Your task to perform on an android device: Open the calendar app, open the side menu, and click the "Day" option Image 0: 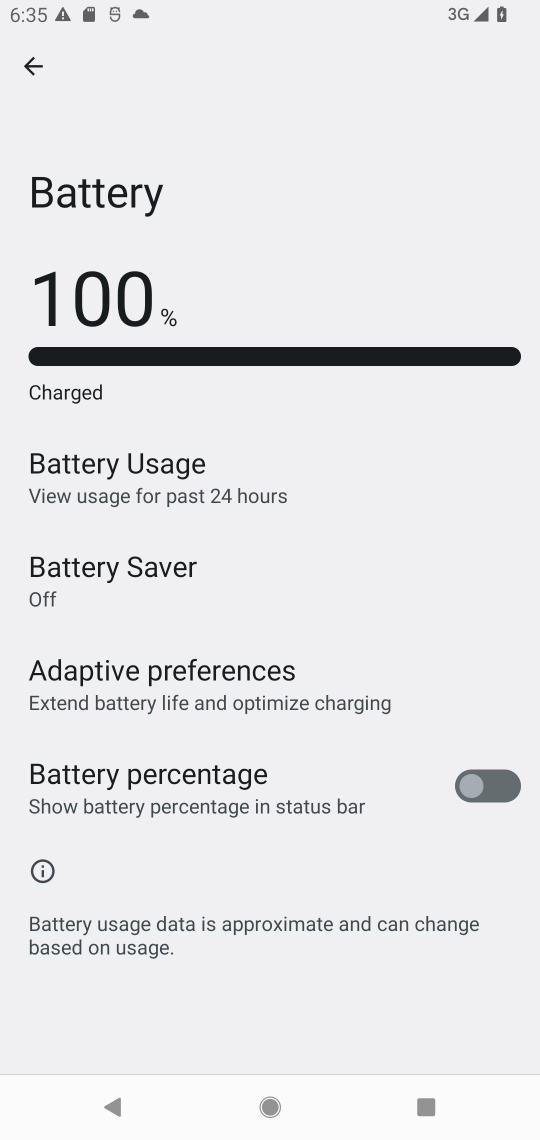
Step 0: press home button
Your task to perform on an android device: Open the calendar app, open the side menu, and click the "Day" option Image 1: 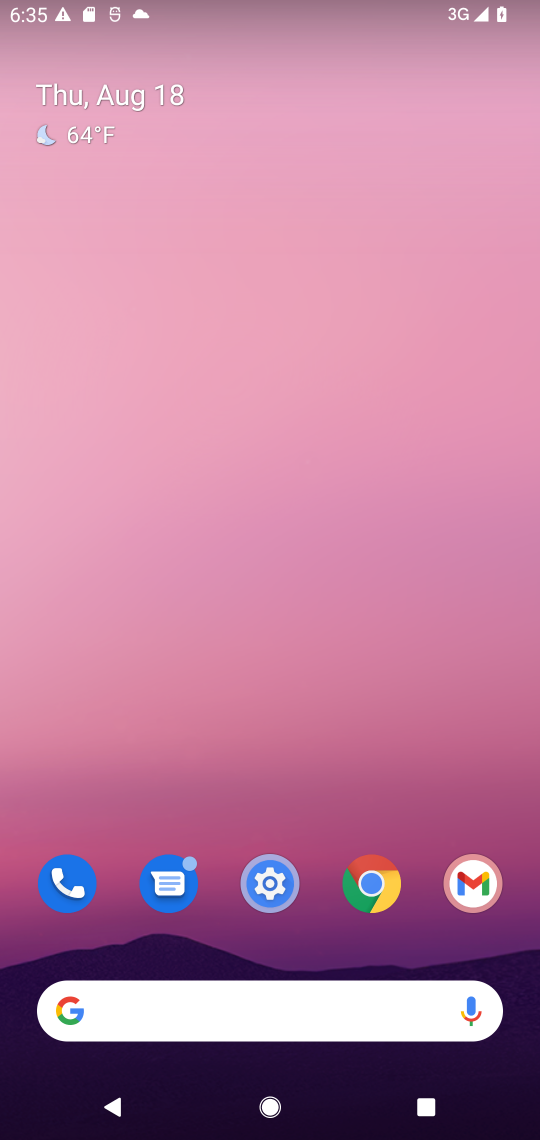
Step 1: drag from (65, 1099) to (294, 443)
Your task to perform on an android device: Open the calendar app, open the side menu, and click the "Day" option Image 2: 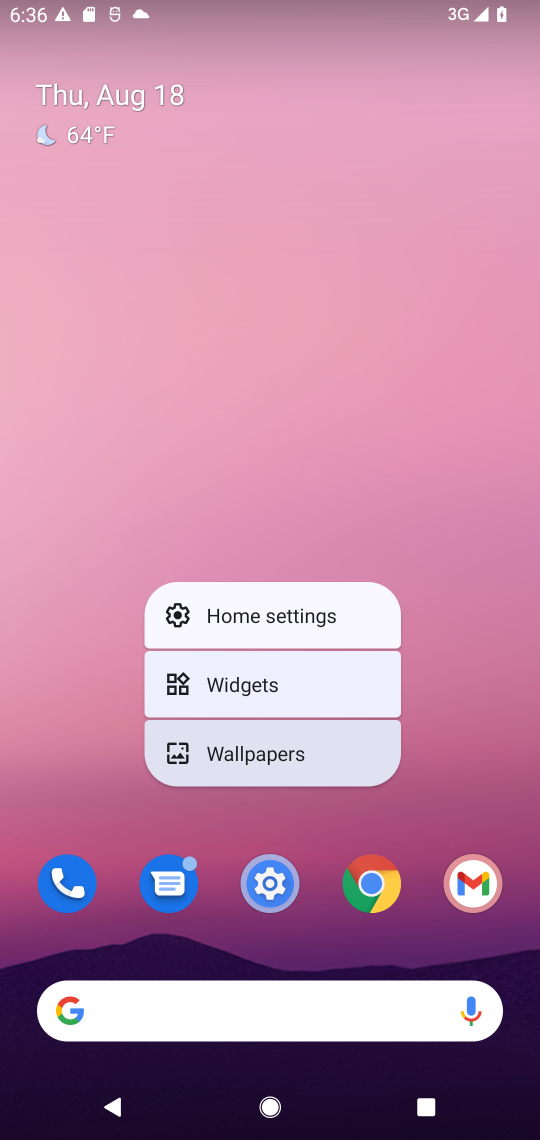
Step 2: drag from (29, 1045) to (120, 559)
Your task to perform on an android device: Open the calendar app, open the side menu, and click the "Day" option Image 3: 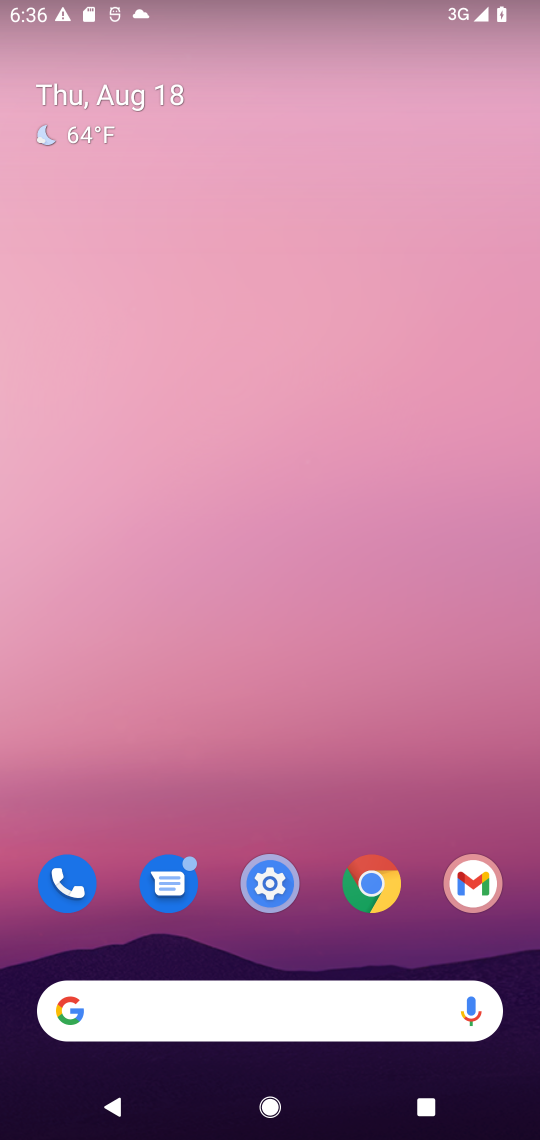
Step 3: drag from (48, 1075) to (182, 515)
Your task to perform on an android device: Open the calendar app, open the side menu, and click the "Day" option Image 4: 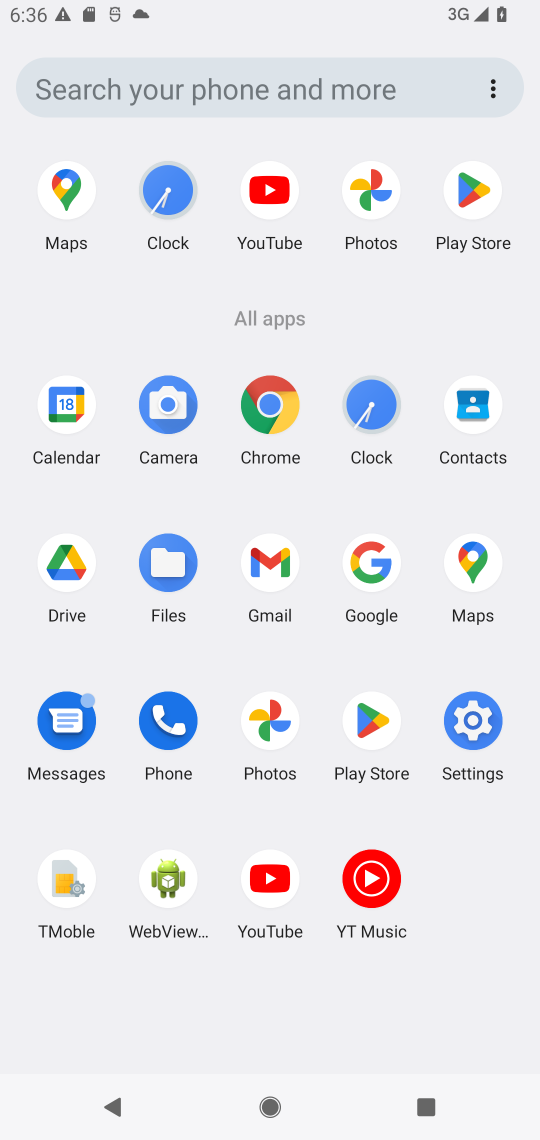
Step 4: click (51, 424)
Your task to perform on an android device: Open the calendar app, open the side menu, and click the "Day" option Image 5: 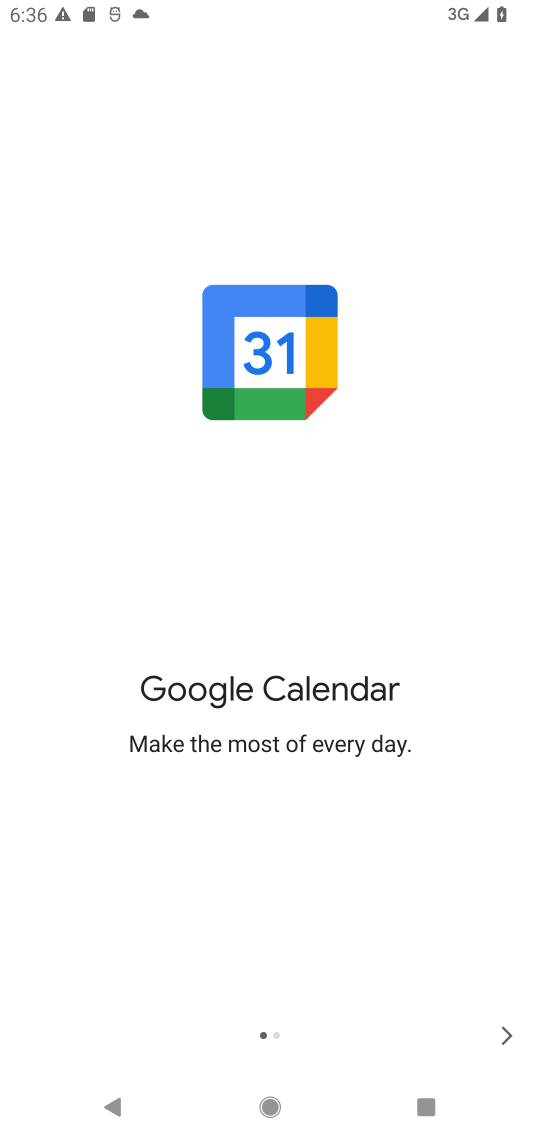
Step 5: click (505, 1029)
Your task to perform on an android device: Open the calendar app, open the side menu, and click the "Day" option Image 6: 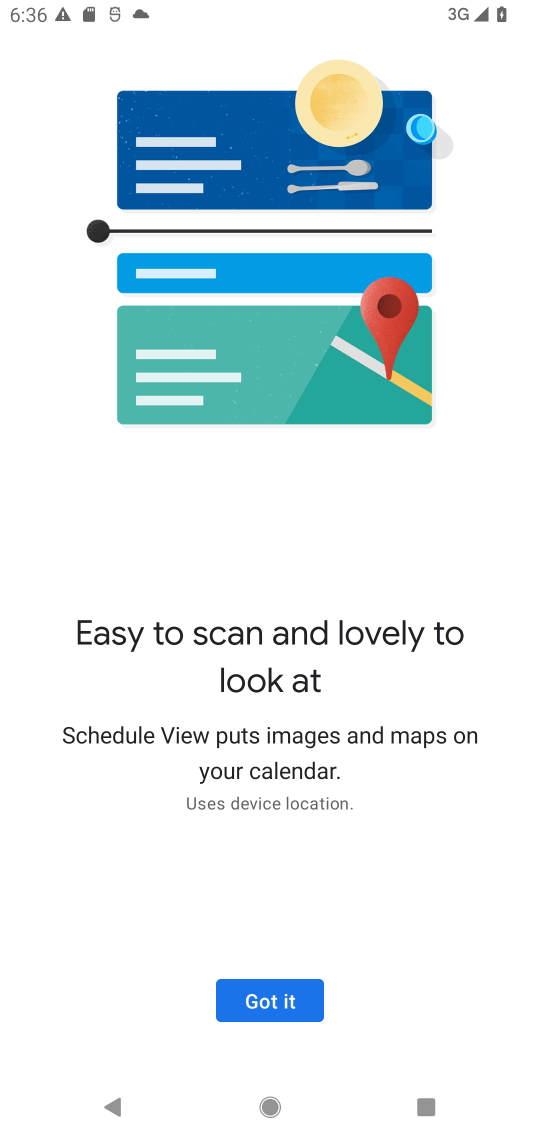
Step 6: click (257, 1001)
Your task to perform on an android device: Open the calendar app, open the side menu, and click the "Day" option Image 7: 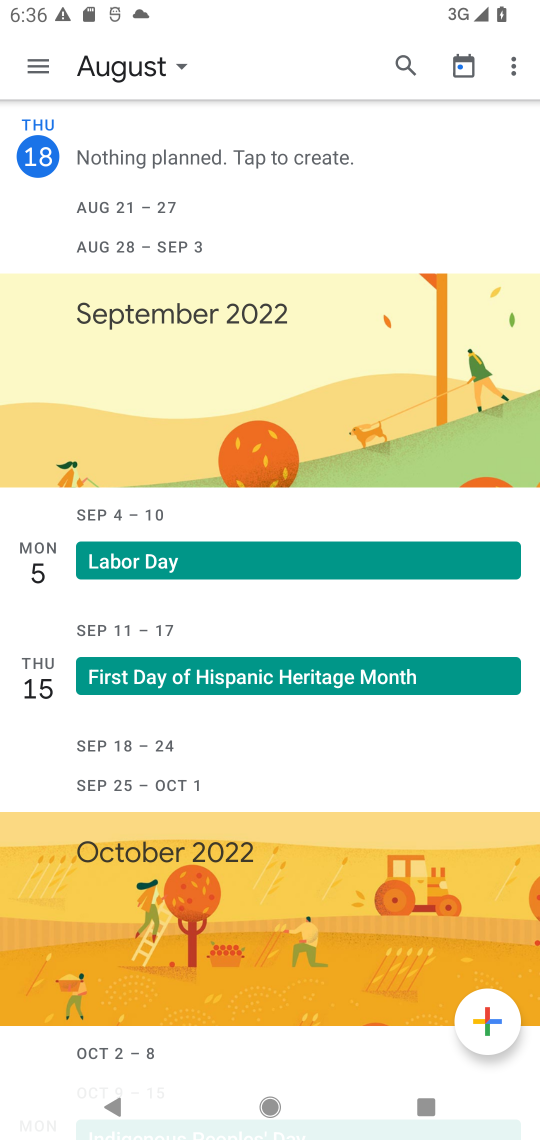
Step 7: click (50, 86)
Your task to perform on an android device: Open the calendar app, open the side menu, and click the "Day" option Image 8: 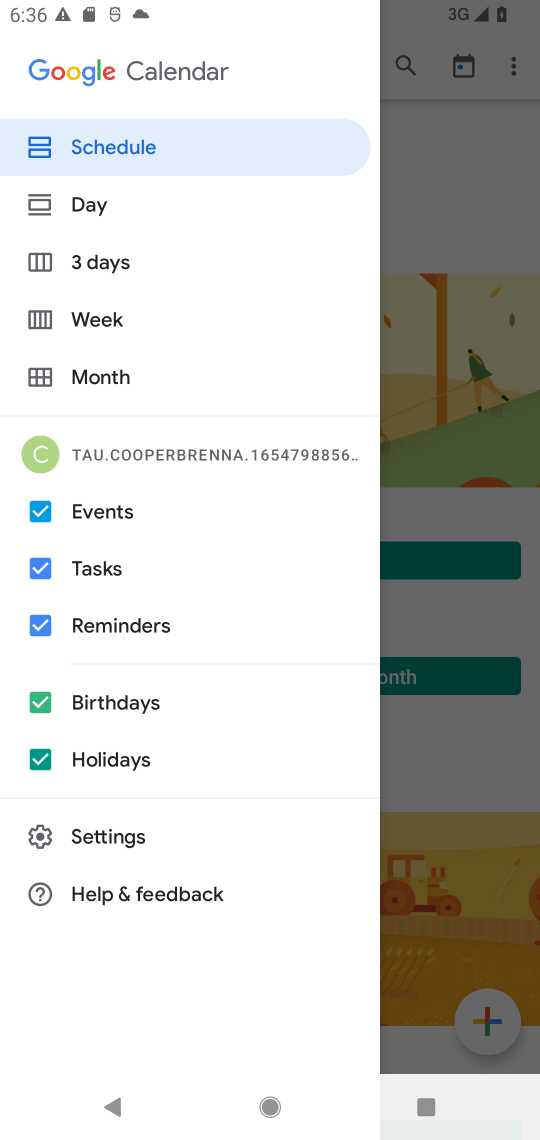
Step 8: click (94, 213)
Your task to perform on an android device: Open the calendar app, open the side menu, and click the "Day" option Image 9: 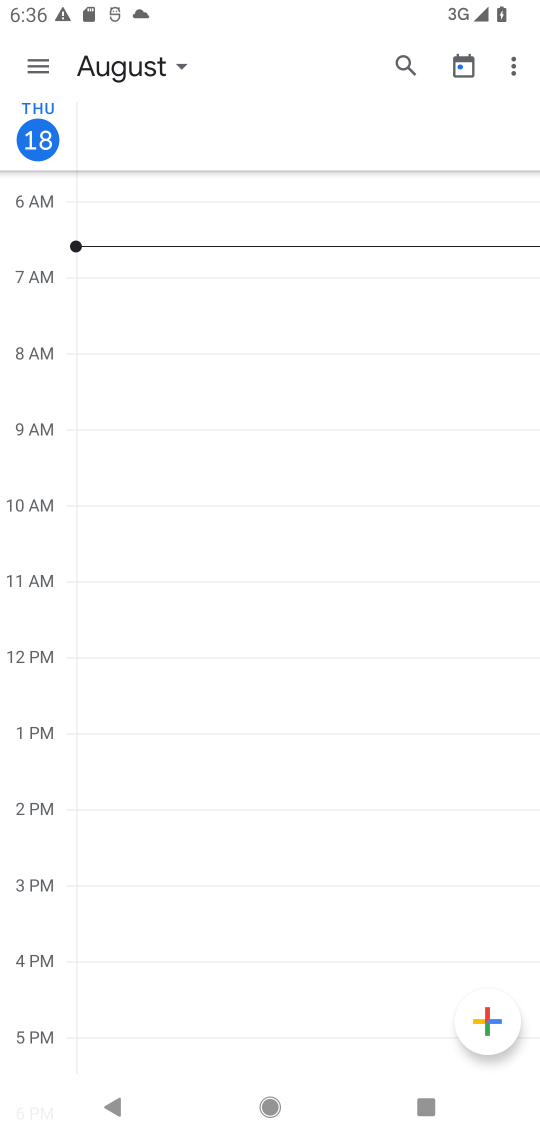
Step 9: task complete